Your task to perform on an android device: Go to display settings Image 0: 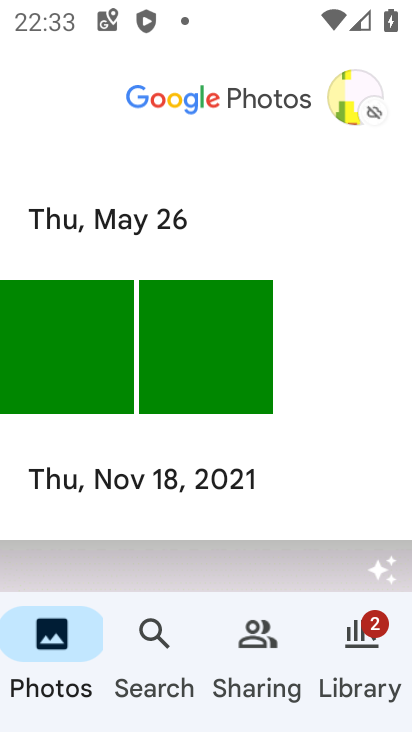
Step 0: press home button
Your task to perform on an android device: Go to display settings Image 1: 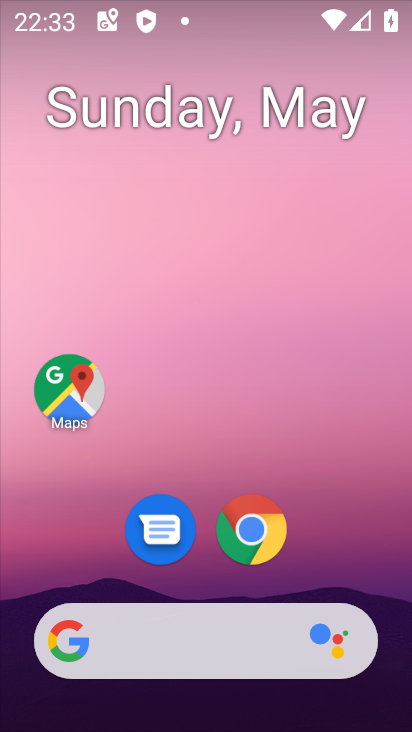
Step 1: drag from (342, 511) to (194, 2)
Your task to perform on an android device: Go to display settings Image 2: 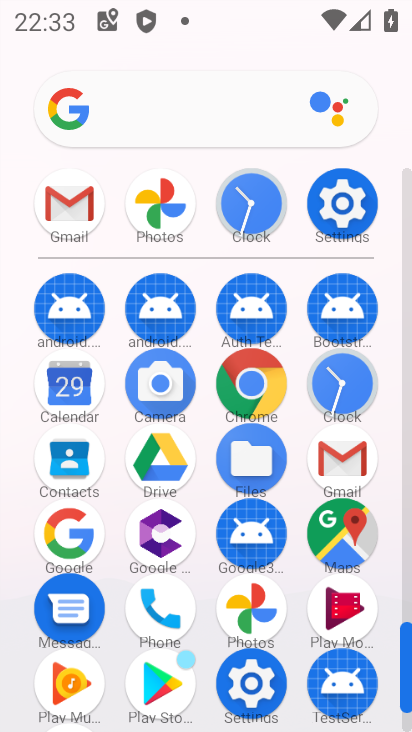
Step 2: click (343, 228)
Your task to perform on an android device: Go to display settings Image 3: 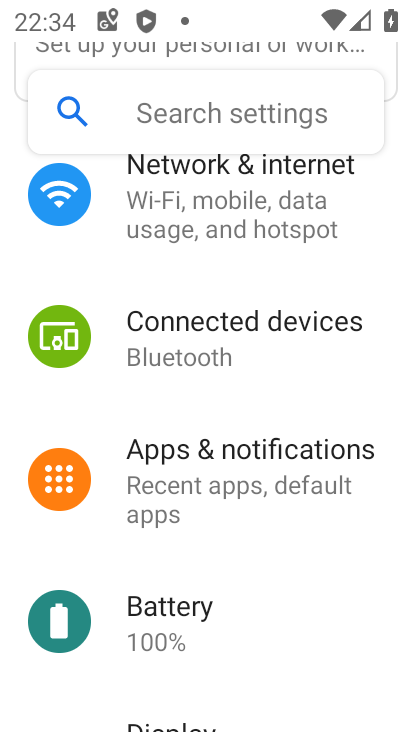
Step 3: drag from (229, 558) to (229, 494)
Your task to perform on an android device: Go to display settings Image 4: 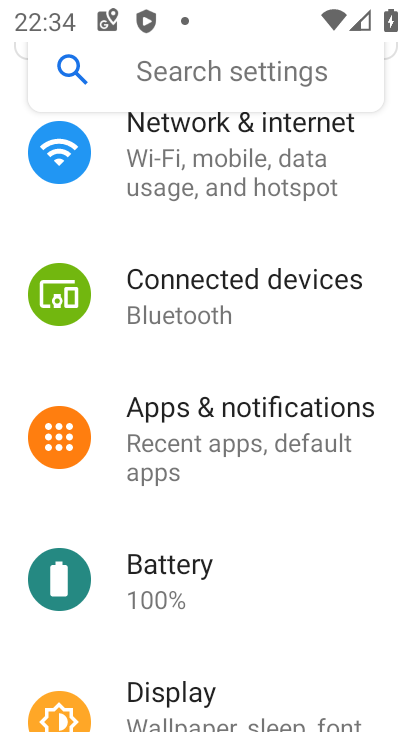
Step 4: drag from (205, 625) to (205, 589)
Your task to perform on an android device: Go to display settings Image 5: 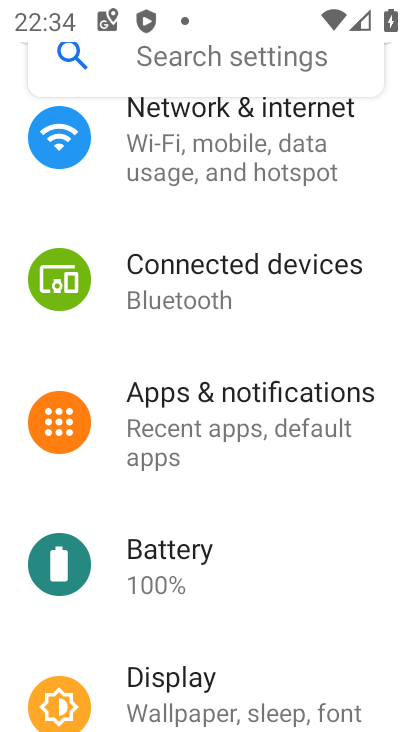
Step 5: click (211, 656)
Your task to perform on an android device: Go to display settings Image 6: 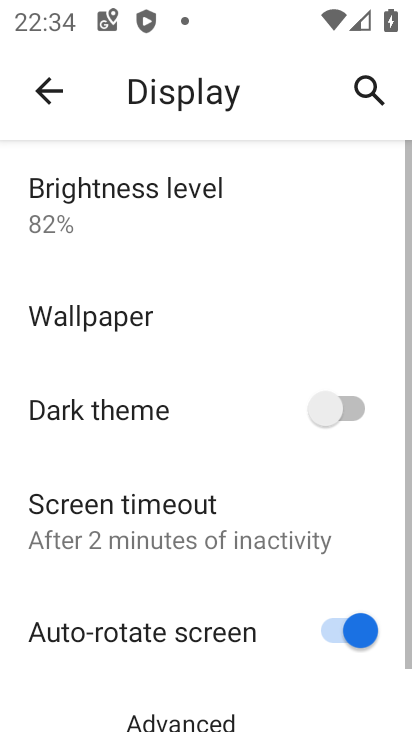
Step 6: task complete